Your task to perform on an android device: Go to battery settings Image 0: 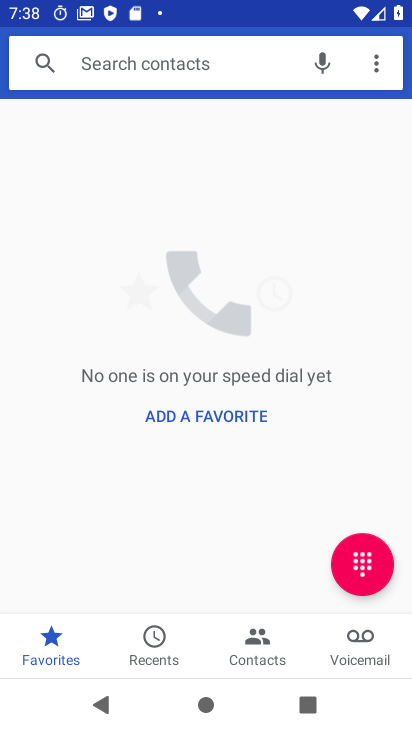
Step 0: press home button
Your task to perform on an android device: Go to battery settings Image 1: 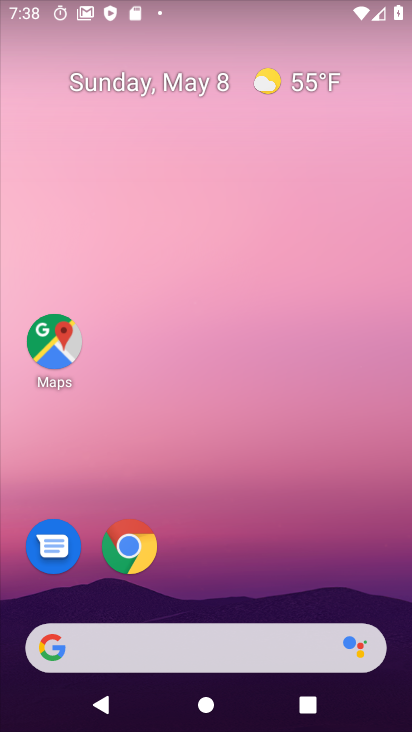
Step 1: drag from (203, 509) to (177, 36)
Your task to perform on an android device: Go to battery settings Image 2: 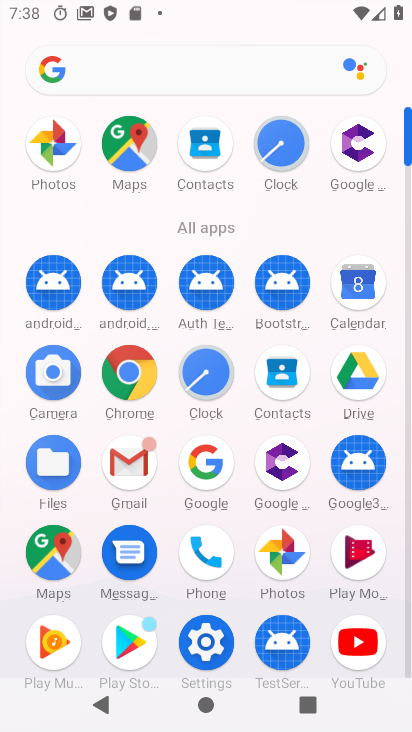
Step 2: click (211, 635)
Your task to perform on an android device: Go to battery settings Image 3: 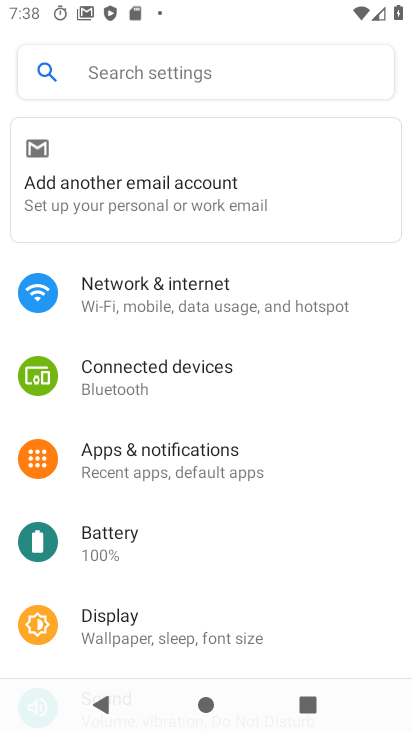
Step 3: click (175, 541)
Your task to perform on an android device: Go to battery settings Image 4: 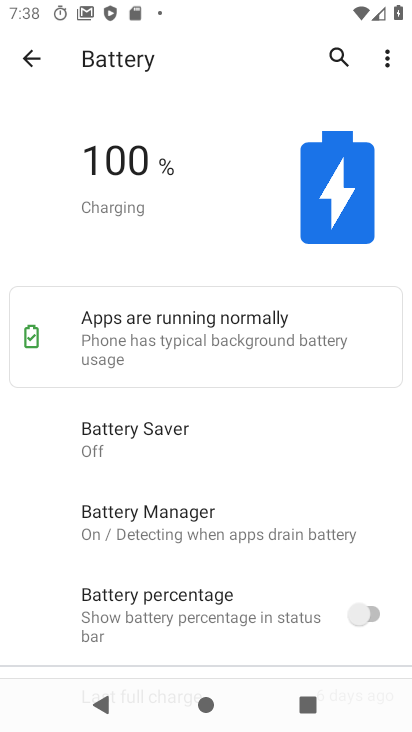
Step 4: task complete